Your task to perform on an android device: open app "Indeed Job Search" Image 0: 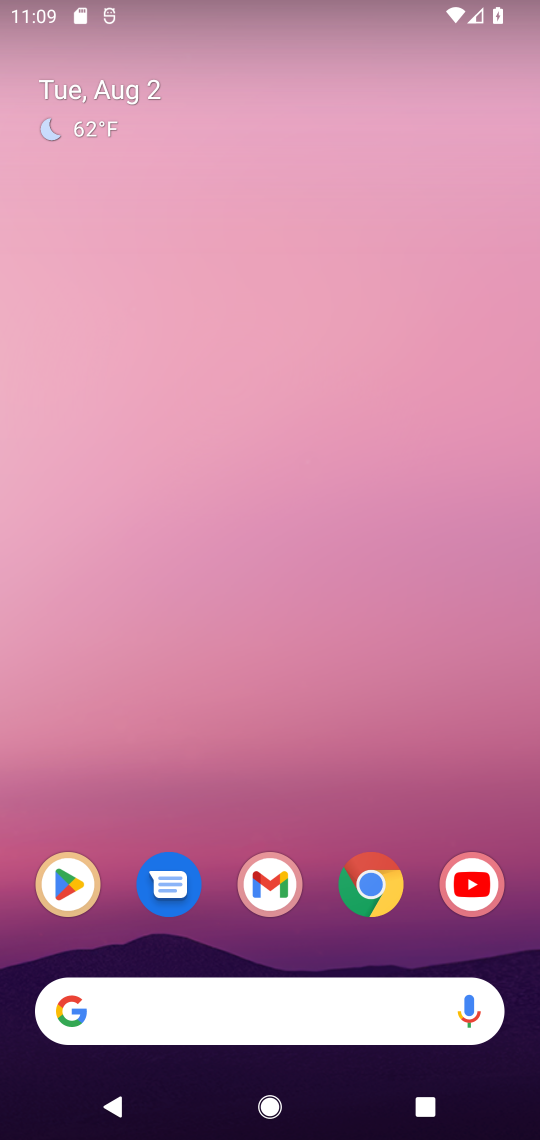
Step 0: click (75, 890)
Your task to perform on an android device: open app "Indeed Job Search" Image 1: 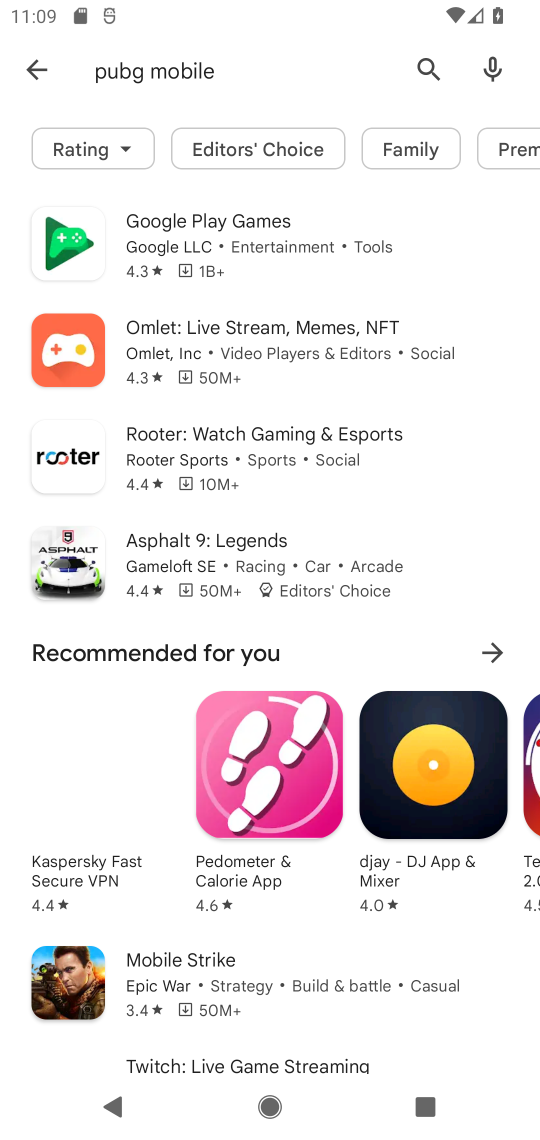
Step 1: click (237, 65)
Your task to perform on an android device: open app "Indeed Job Search" Image 2: 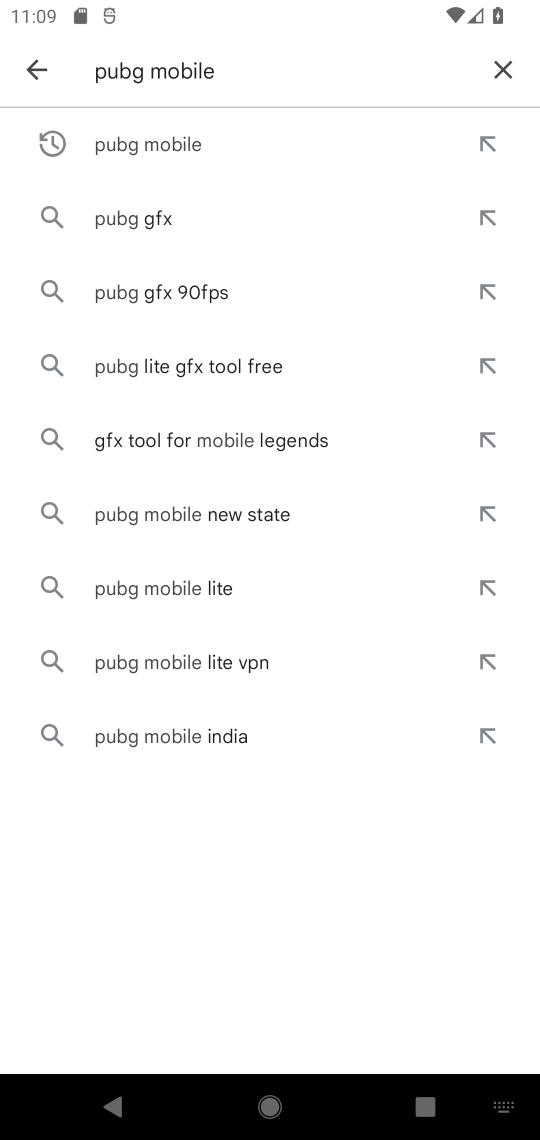
Step 2: click (510, 68)
Your task to perform on an android device: open app "Indeed Job Search" Image 3: 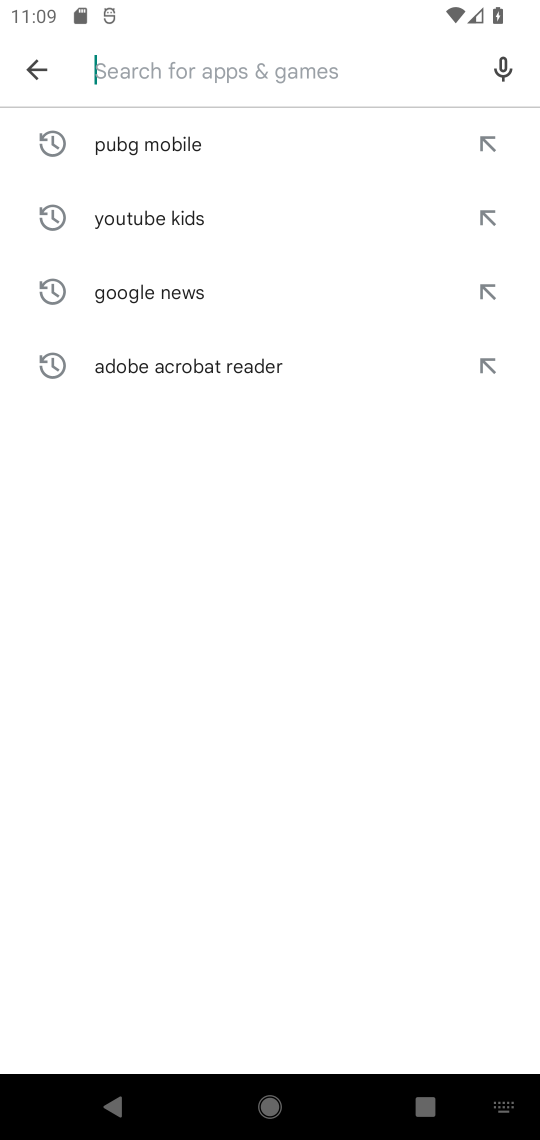
Step 3: type "indeed job search"
Your task to perform on an android device: open app "Indeed Job Search" Image 4: 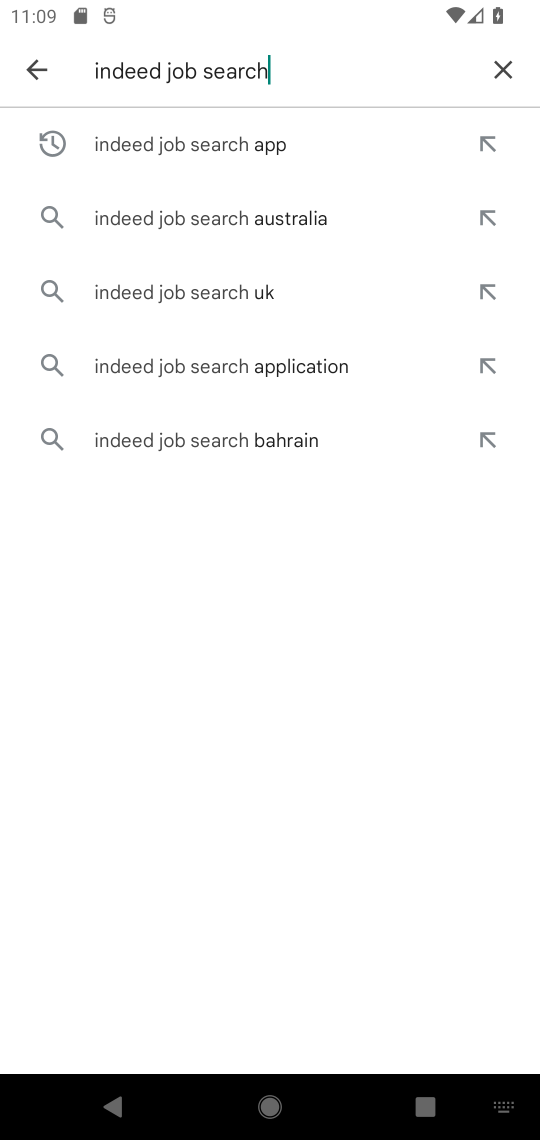
Step 4: click (182, 153)
Your task to perform on an android device: open app "Indeed Job Search" Image 5: 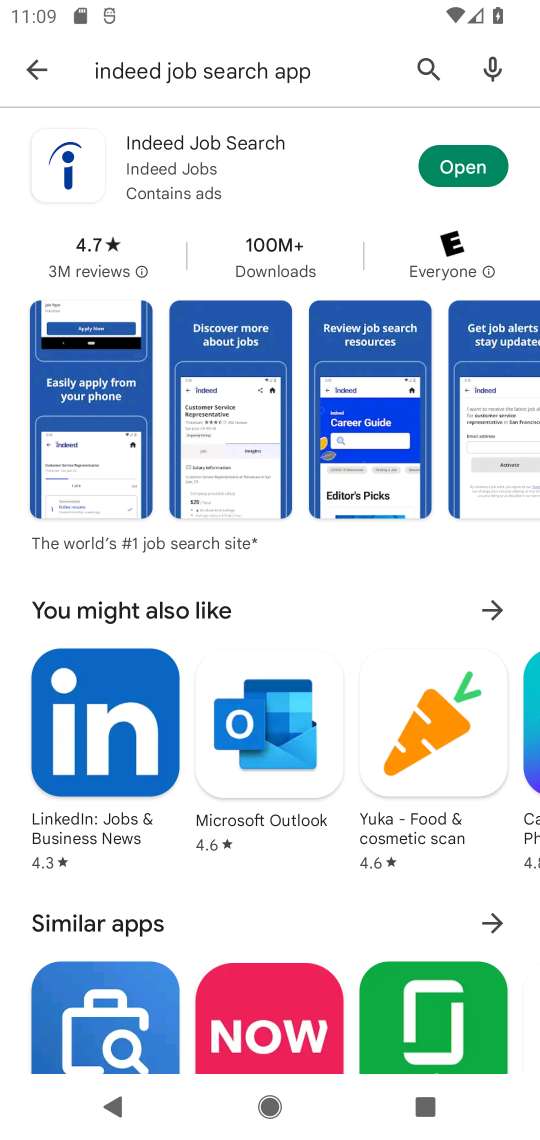
Step 5: click (477, 160)
Your task to perform on an android device: open app "Indeed Job Search" Image 6: 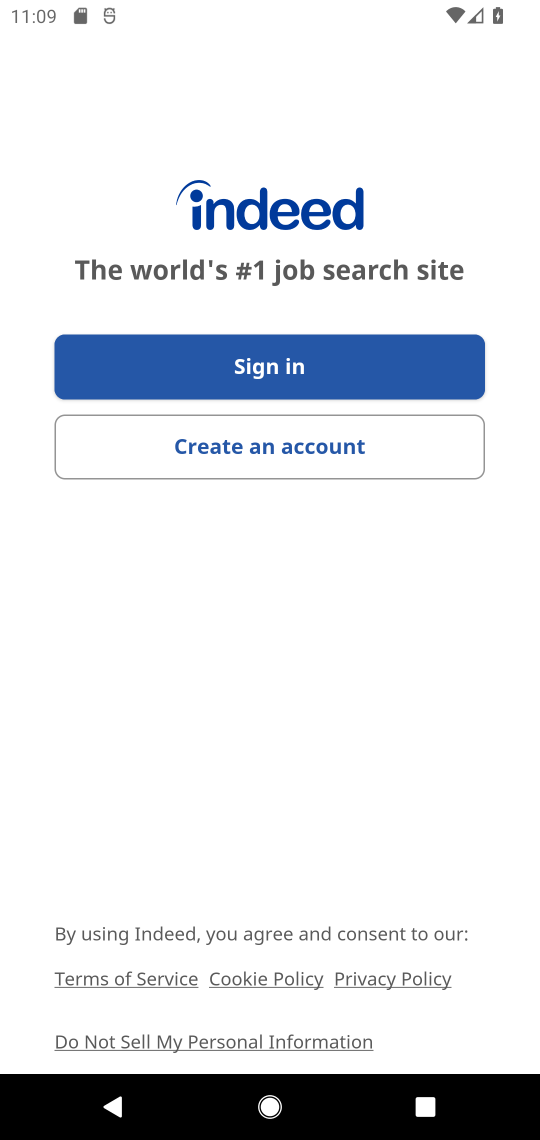
Step 6: task complete